Your task to perform on an android device: Open the Play Movies app and select the watchlist tab. Image 0: 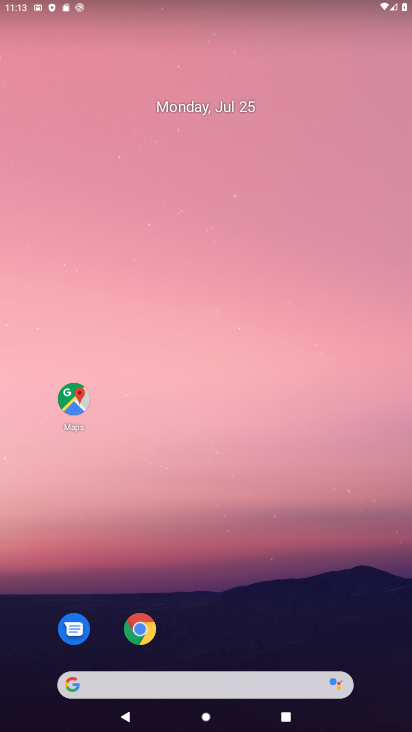
Step 0: drag from (187, 643) to (195, 82)
Your task to perform on an android device: Open the Play Movies app and select the watchlist tab. Image 1: 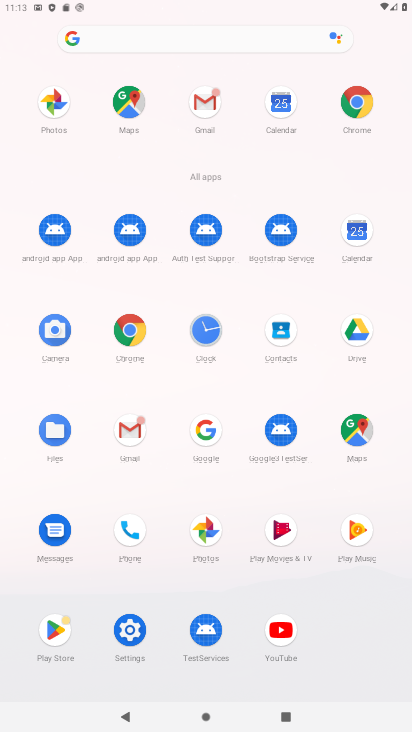
Step 1: click (280, 532)
Your task to perform on an android device: Open the Play Movies app and select the watchlist tab. Image 2: 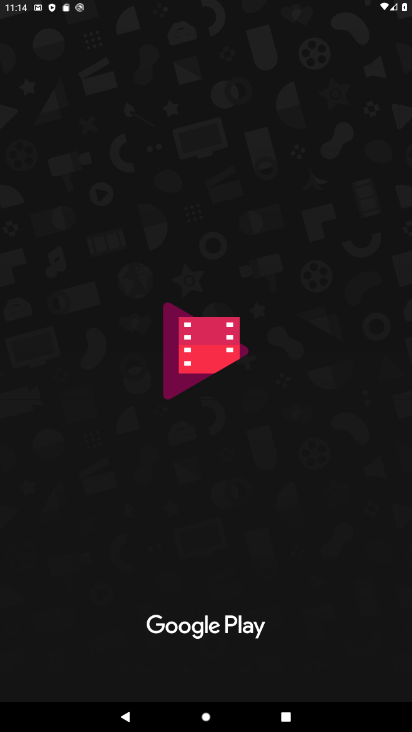
Step 2: drag from (220, 554) to (327, 148)
Your task to perform on an android device: Open the Play Movies app and select the watchlist tab. Image 3: 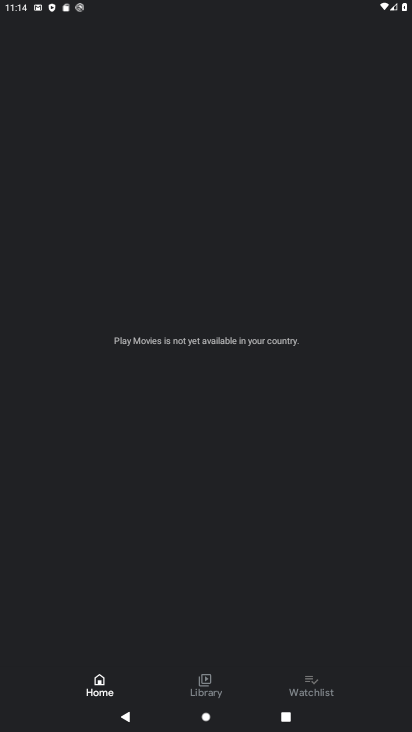
Step 3: drag from (241, 509) to (264, 244)
Your task to perform on an android device: Open the Play Movies app and select the watchlist tab. Image 4: 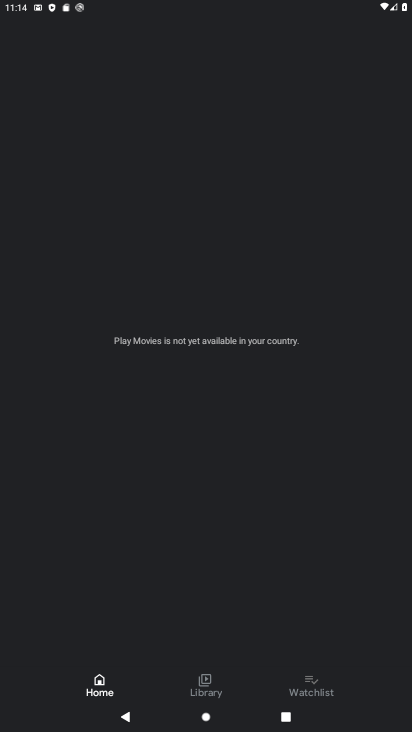
Step 4: click (309, 695)
Your task to perform on an android device: Open the Play Movies app and select the watchlist tab. Image 5: 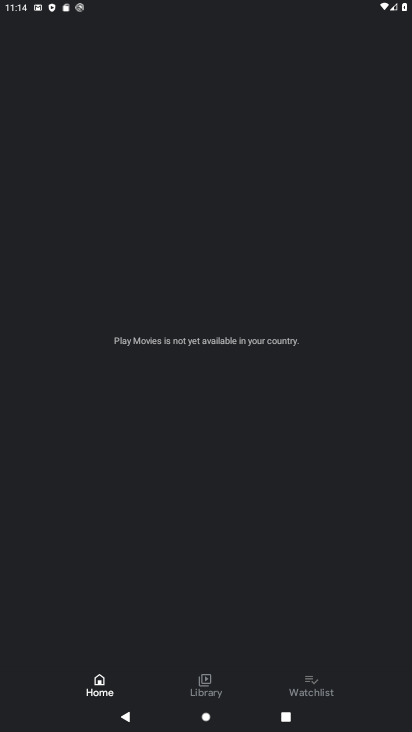
Step 5: click (309, 695)
Your task to perform on an android device: Open the Play Movies app and select the watchlist tab. Image 6: 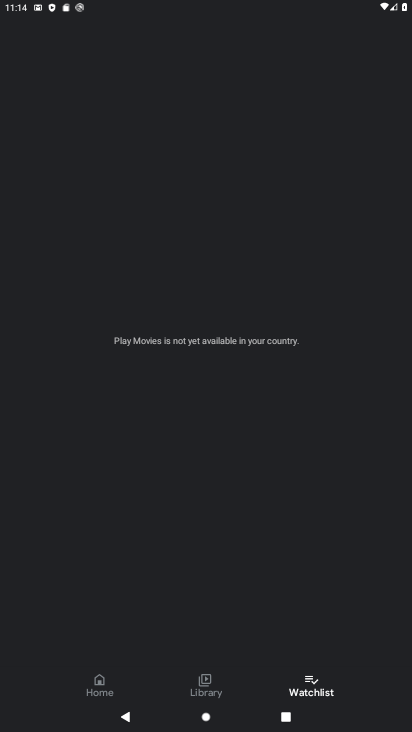
Step 6: task complete